Your task to perform on an android device: Open calendar and show me the fourth week of next month Image 0: 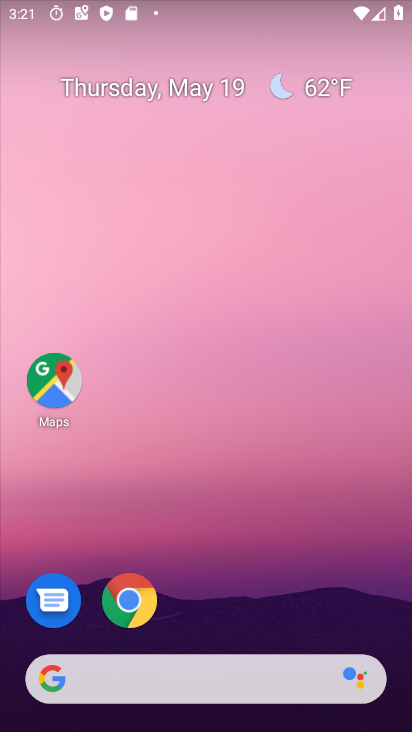
Step 0: drag from (17, 616) to (284, 77)
Your task to perform on an android device: Open calendar and show me the fourth week of next month Image 1: 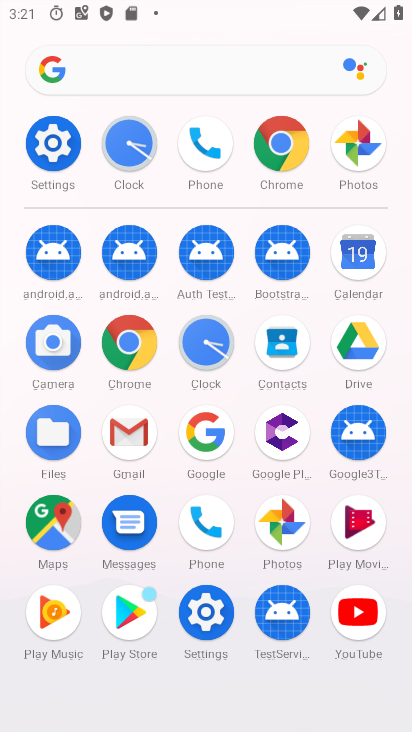
Step 1: click (347, 251)
Your task to perform on an android device: Open calendar and show me the fourth week of next month Image 2: 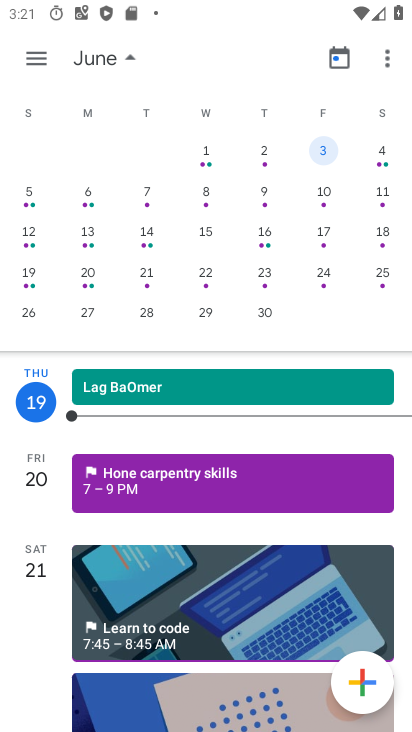
Step 2: click (336, 194)
Your task to perform on an android device: Open calendar and show me the fourth week of next month Image 3: 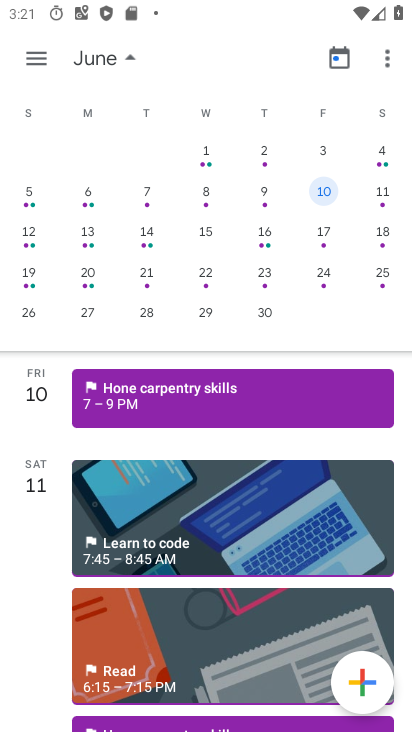
Step 3: click (317, 234)
Your task to perform on an android device: Open calendar and show me the fourth week of next month Image 4: 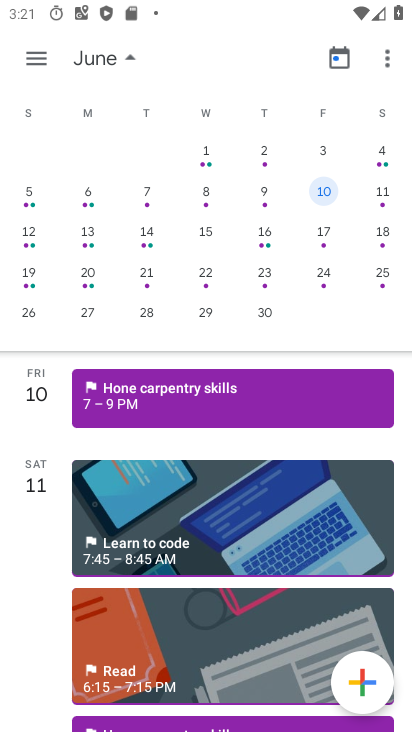
Step 4: click (325, 283)
Your task to perform on an android device: Open calendar and show me the fourth week of next month Image 5: 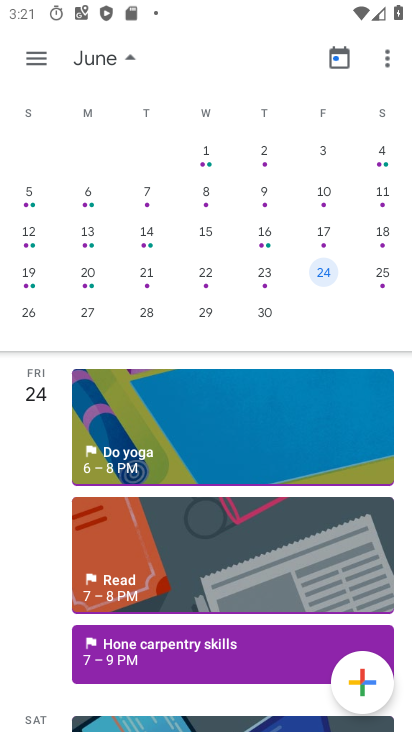
Step 5: click (325, 232)
Your task to perform on an android device: Open calendar and show me the fourth week of next month Image 6: 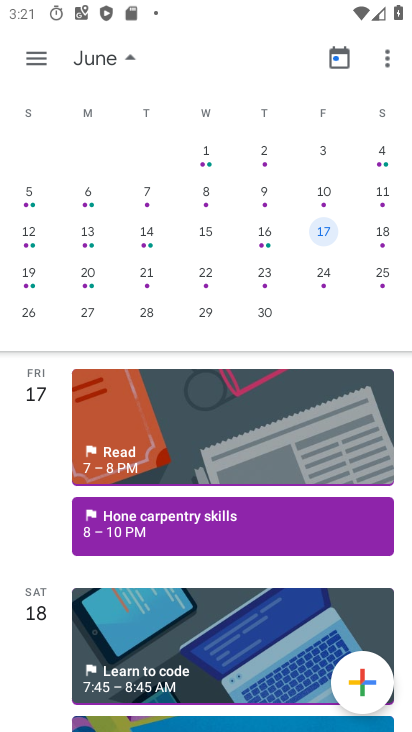
Step 6: task complete